Your task to perform on an android device: change the upload size in google photos Image 0: 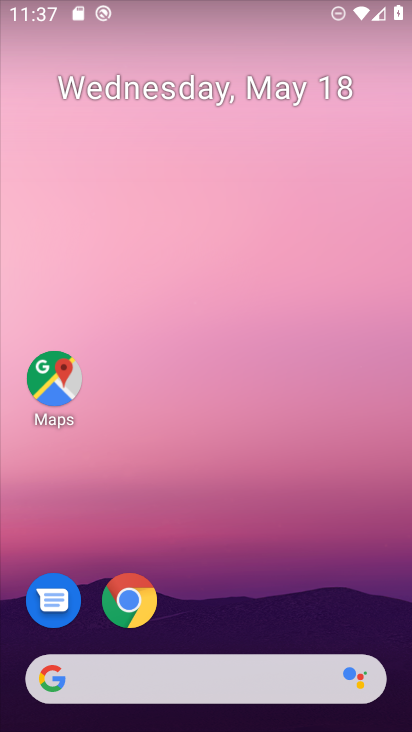
Step 0: drag from (203, 630) to (296, 29)
Your task to perform on an android device: change the upload size in google photos Image 1: 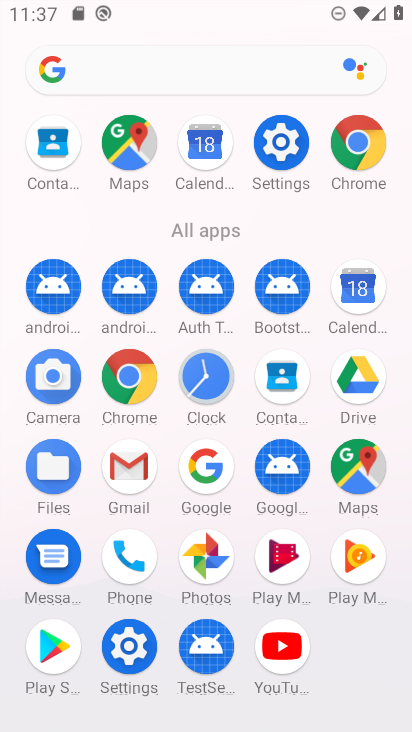
Step 1: click (196, 543)
Your task to perform on an android device: change the upload size in google photos Image 2: 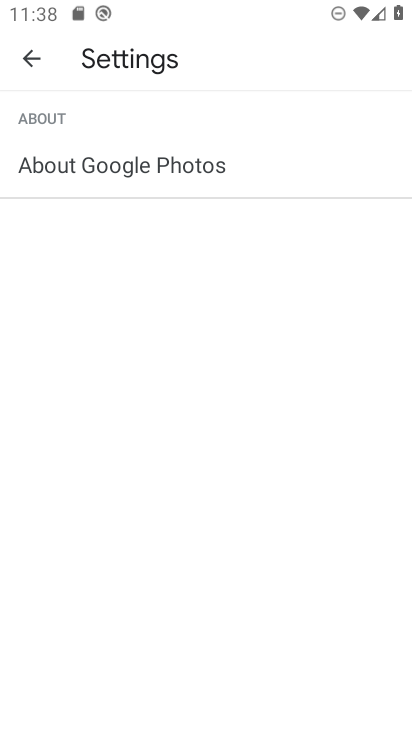
Step 2: click (34, 66)
Your task to perform on an android device: change the upload size in google photos Image 3: 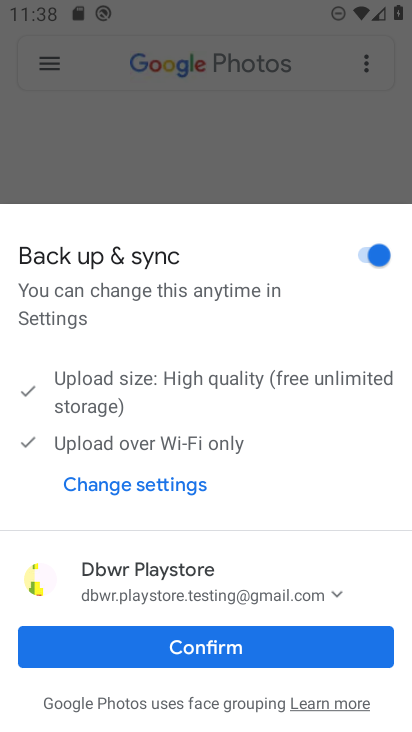
Step 3: click (52, 59)
Your task to perform on an android device: change the upload size in google photos Image 4: 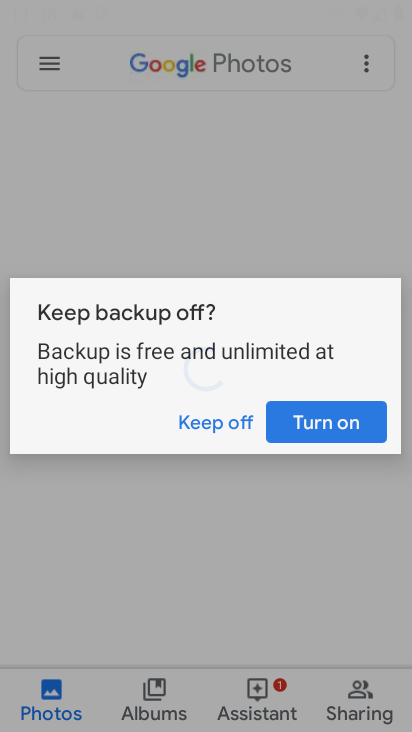
Step 4: click (200, 648)
Your task to perform on an android device: change the upload size in google photos Image 5: 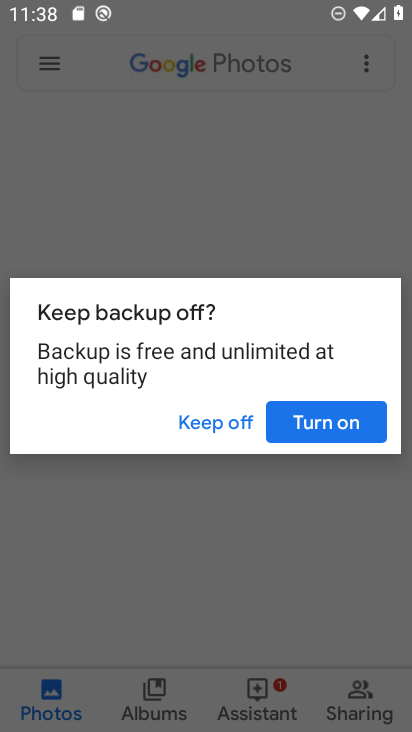
Step 5: click (299, 433)
Your task to perform on an android device: change the upload size in google photos Image 6: 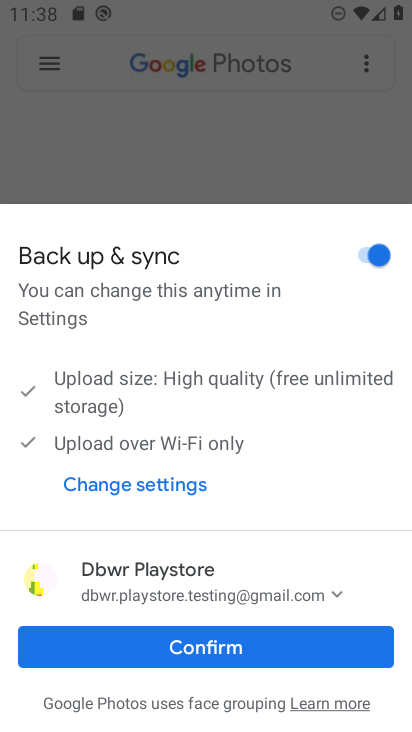
Step 6: click (234, 647)
Your task to perform on an android device: change the upload size in google photos Image 7: 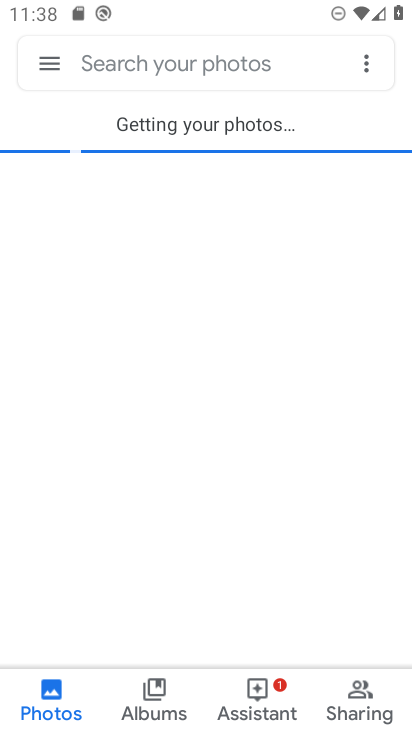
Step 7: click (55, 65)
Your task to perform on an android device: change the upload size in google photos Image 8: 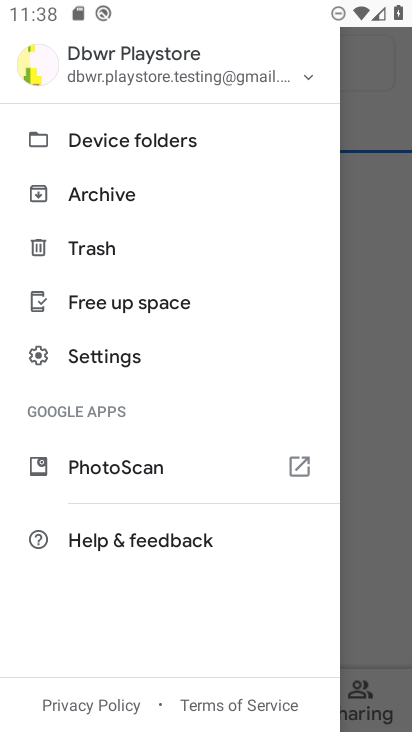
Step 8: click (108, 368)
Your task to perform on an android device: change the upload size in google photos Image 9: 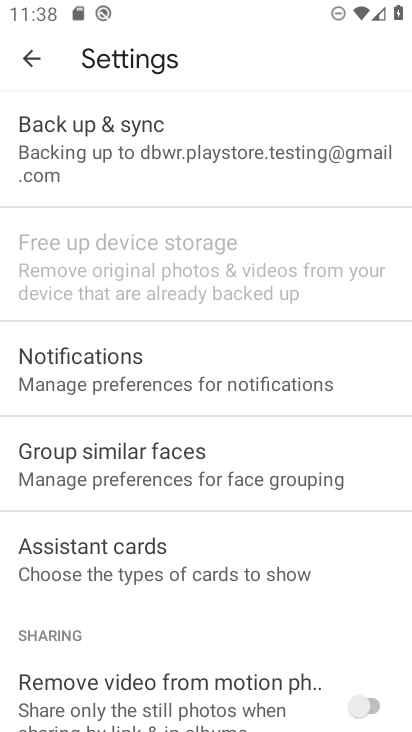
Step 9: click (183, 133)
Your task to perform on an android device: change the upload size in google photos Image 10: 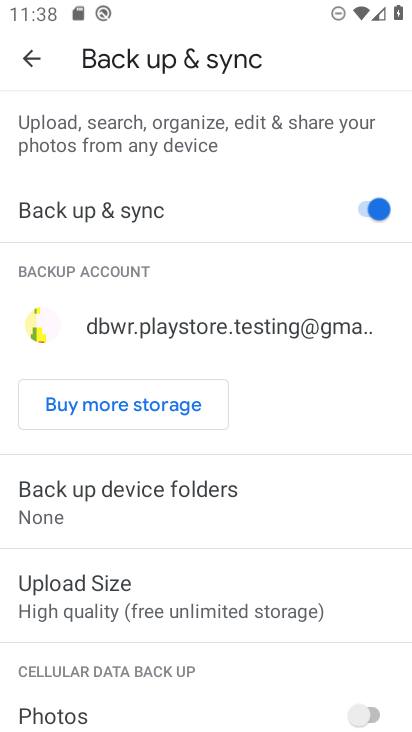
Step 10: drag from (157, 495) to (185, 343)
Your task to perform on an android device: change the upload size in google photos Image 11: 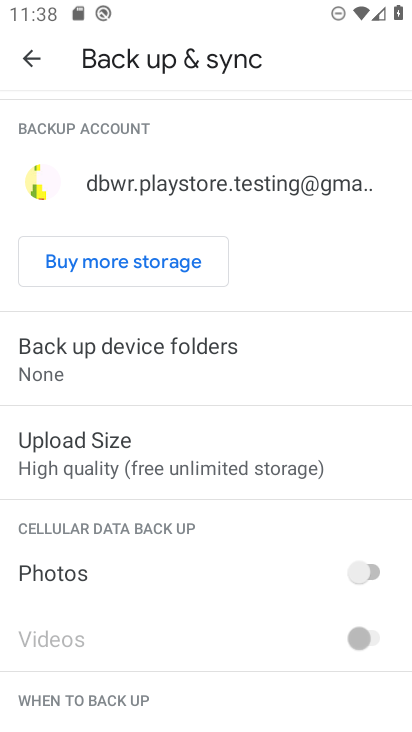
Step 11: click (136, 466)
Your task to perform on an android device: change the upload size in google photos Image 12: 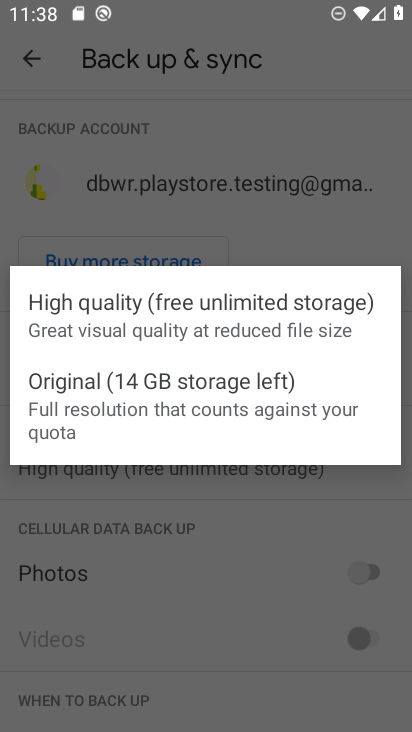
Step 12: click (116, 379)
Your task to perform on an android device: change the upload size in google photos Image 13: 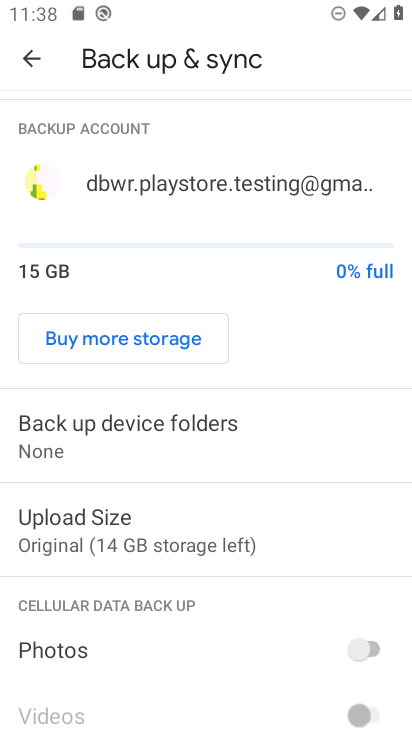
Step 13: task complete